Your task to perform on an android device: Open the Play Movies app and select the watchlist tab. Image 0: 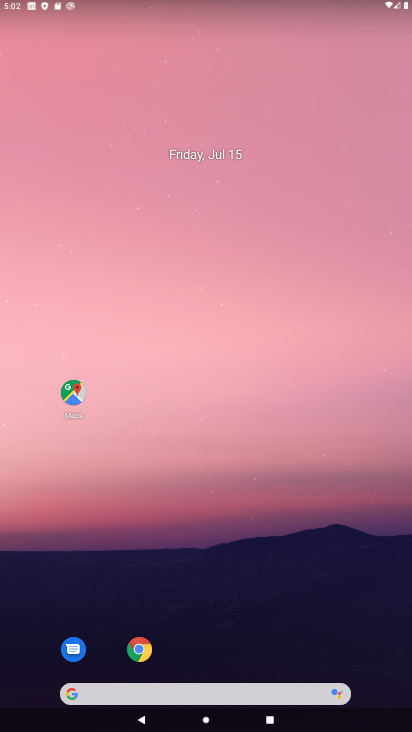
Step 0: drag from (226, 696) to (241, 223)
Your task to perform on an android device: Open the Play Movies app and select the watchlist tab. Image 1: 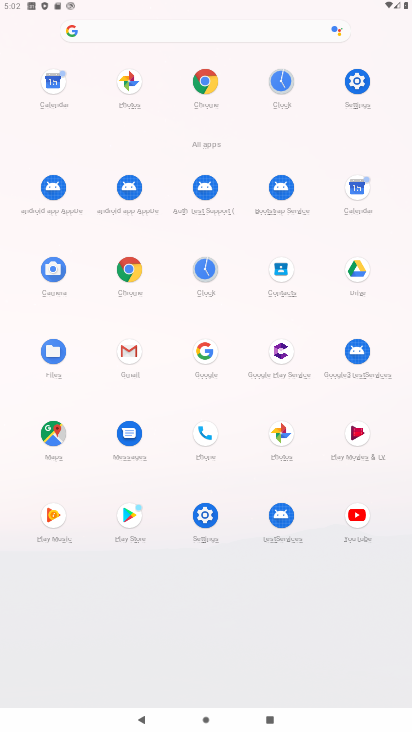
Step 1: click (360, 434)
Your task to perform on an android device: Open the Play Movies app and select the watchlist tab. Image 2: 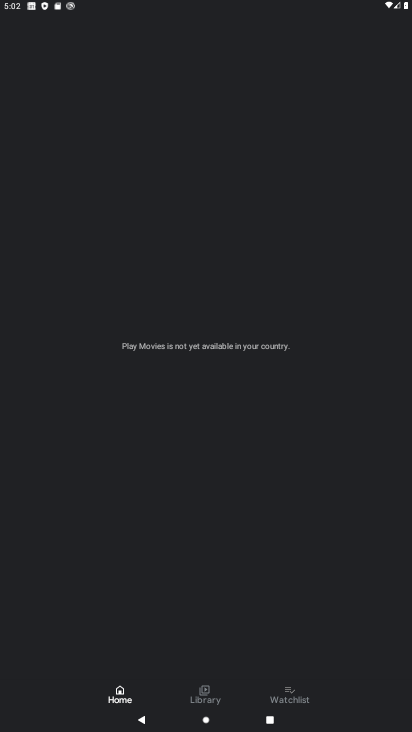
Step 2: click (290, 693)
Your task to perform on an android device: Open the Play Movies app and select the watchlist tab. Image 3: 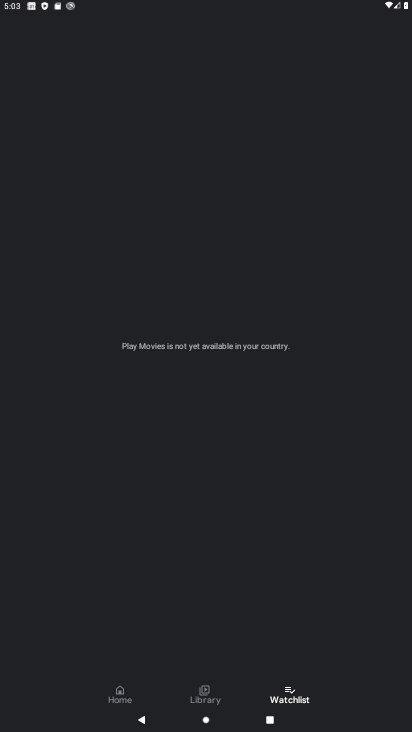
Step 3: task complete